Your task to perform on an android device: Open network settings Image 0: 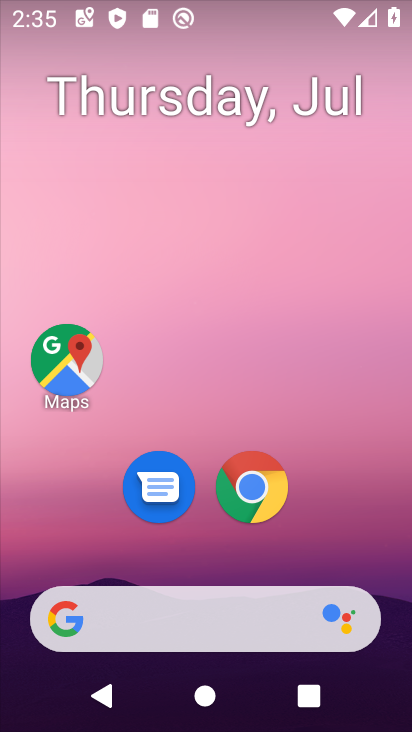
Step 0: drag from (362, 544) to (382, 157)
Your task to perform on an android device: Open network settings Image 1: 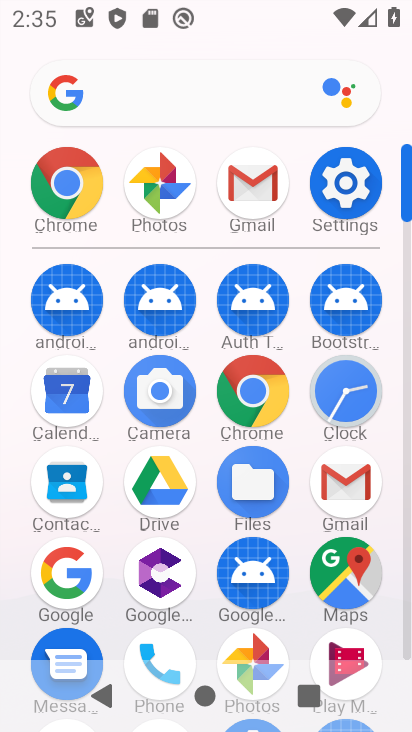
Step 1: click (350, 205)
Your task to perform on an android device: Open network settings Image 2: 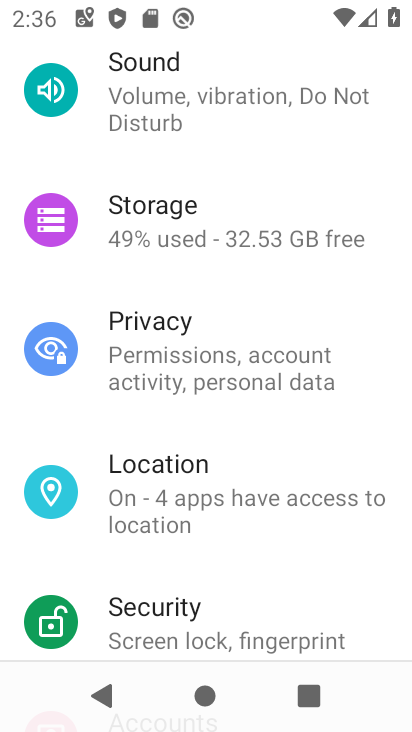
Step 2: drag from (354, 182) to (364, 265)
Your task to perform on an android device: Open network settings Image 3: 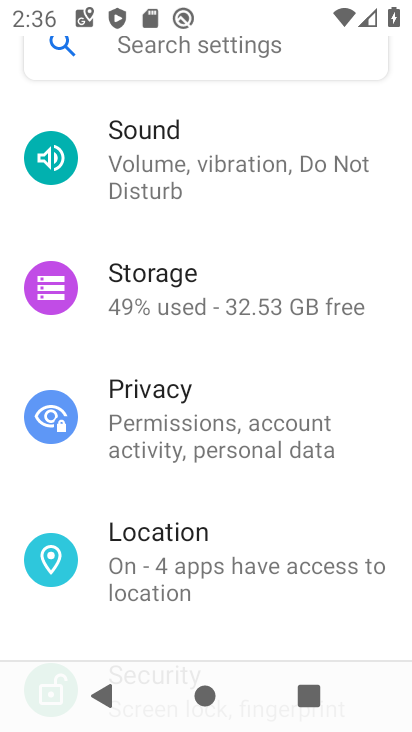
Step 3: drag from (382, 159) to (389, 288)
Your task to perform on an android device: Open network settings Image 4: 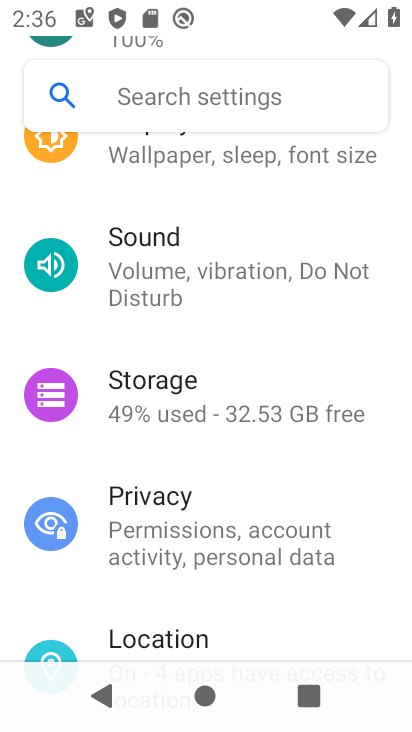
Step 4: drag from (385, 189) to (377, 287)
Your task to perform on an android device: Open network settings Image 5: 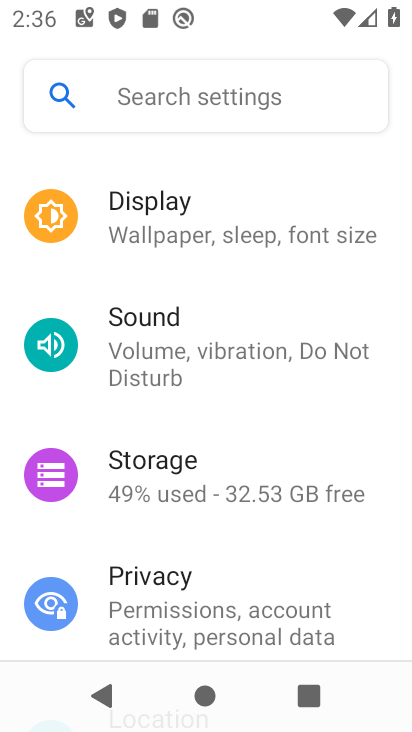
Step 5: drag from (390, 237) to (394, 303)
Your task to perform on an android device: Open network settings Image 6: 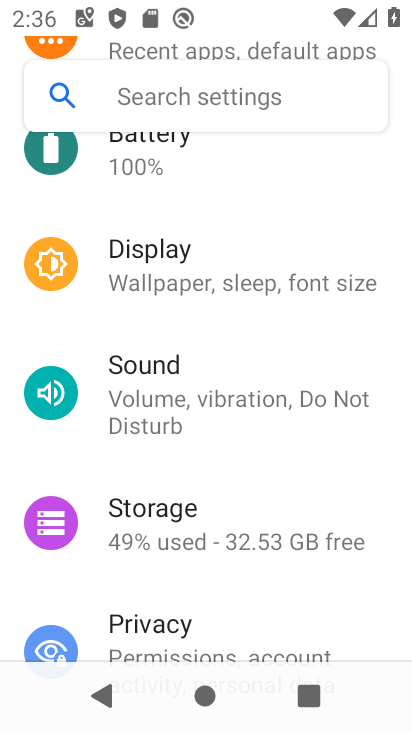
Step 6: drag from (379, 167) to (371, 307)
Your task to perform on an android device: Open network settings Image 7: 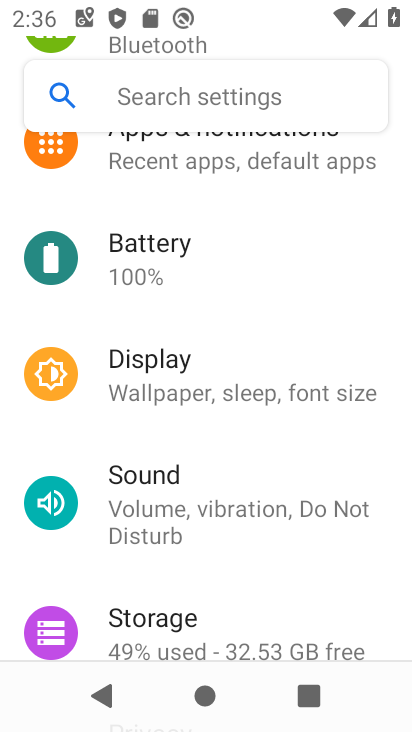
Step 7: drag from (373, 197) to (372, 332)
Your task to perform on an android device: Open network settings Image 8: 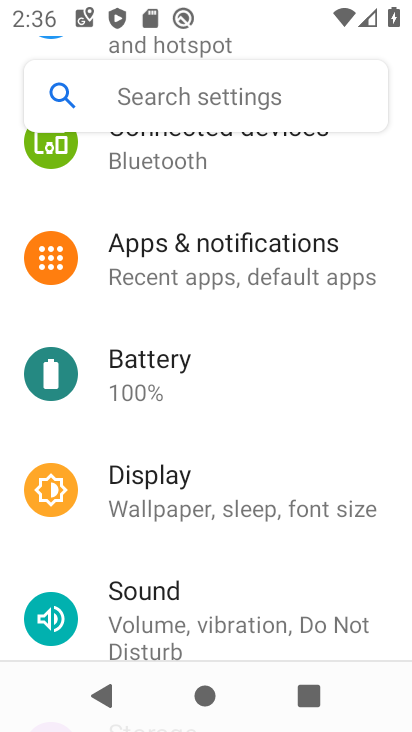
Step 8: drag from (380, 176) to (381, 302)
Your task to perform on an android device: Open network settings Image 9: 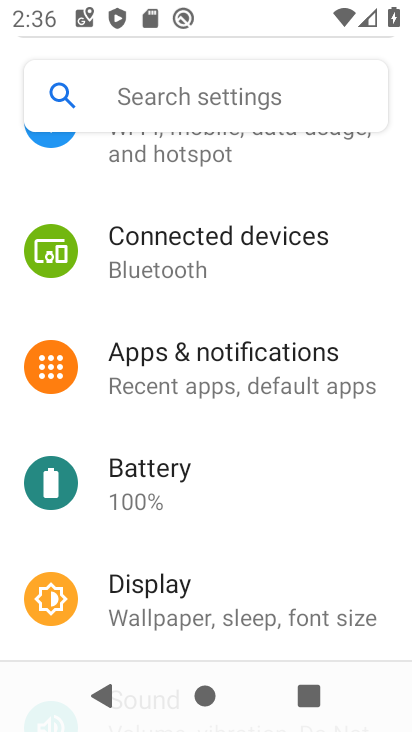
Step 9: drag from (379, 184) to (373, 323)
Your task to perform on an android device: Open network settings Image 10: 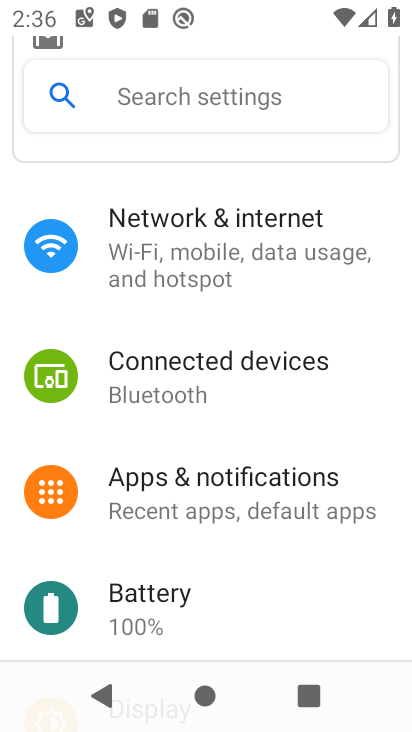
Step 10: click (316, 244)
Your task to perform on an android device: Open network settings Image 11: 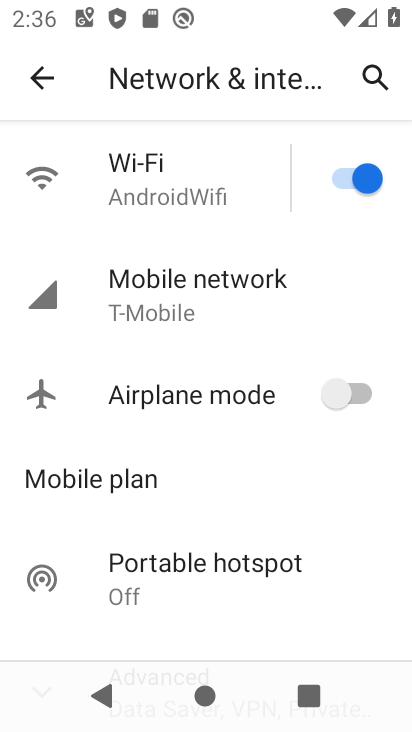
Step 11: task complete